Your task to perform on an android device: turn off improve location accuracy Image 0: 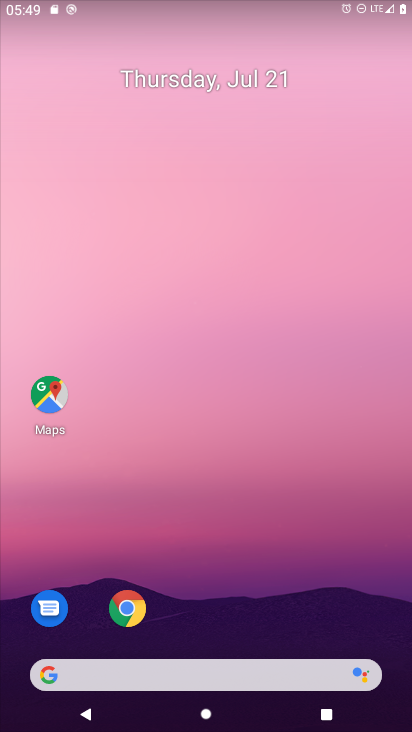
Step 0: drag from (298, 622) to (319, 0)
Your task to perform on an android device: turn off improve location accuracy Image 1: 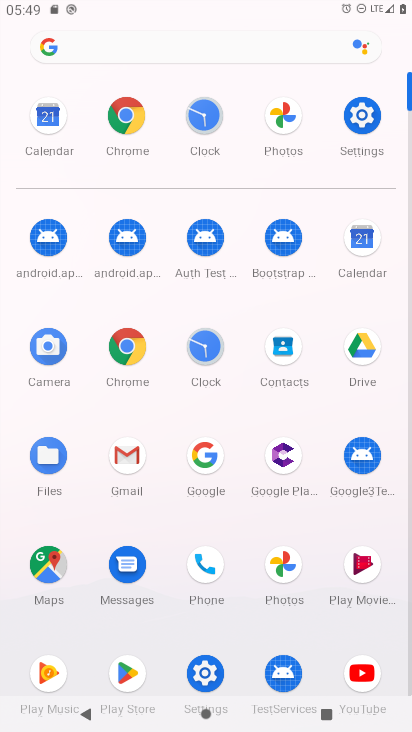
Step 1: click (358, 111)
Your task to perform on an android device: turn off improve location accuracy Image 2: 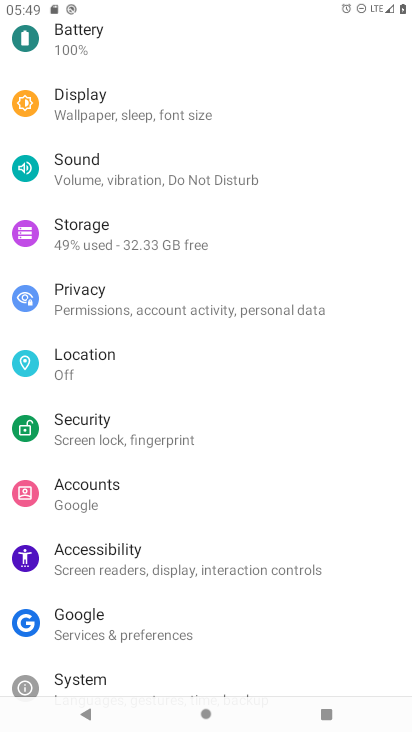
Step 2: click (121, 363)
Your task to perform on an android device: turn off improve location accuracy Image 3: 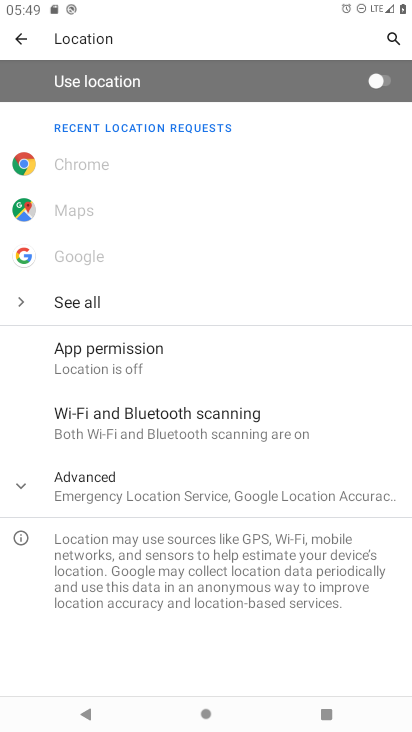
Step 3: click (268, 489)
Your task to perform on an android device: turn off improve location accuracy Image 4: 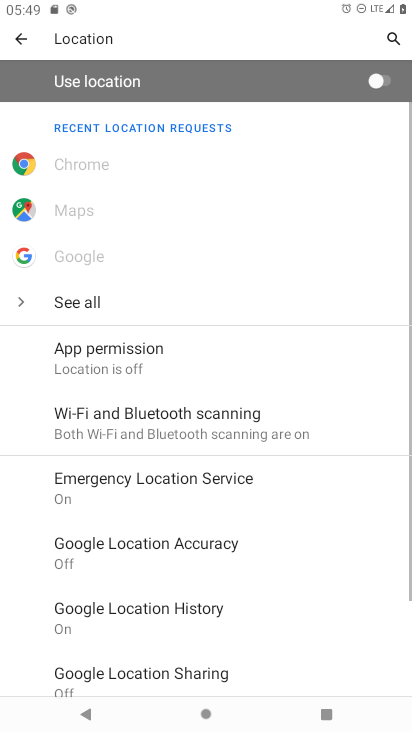
Step 4: click (208, 543)
Your task to perform on an android device: turn off improve location accuracy Image 5: 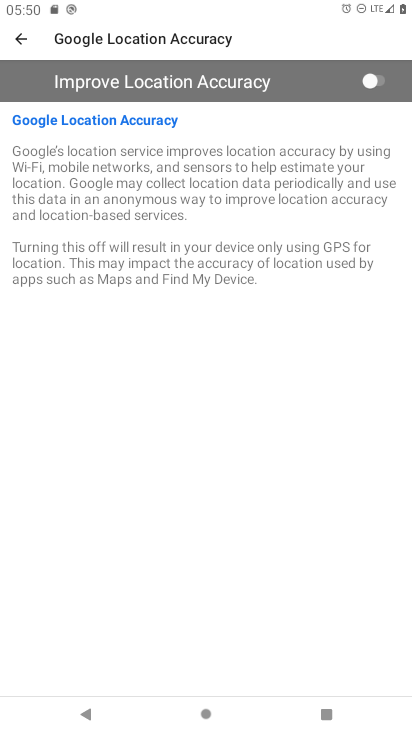
Step 5: task complete